Your task to perform on an android device: all mails in gmail Image 0: 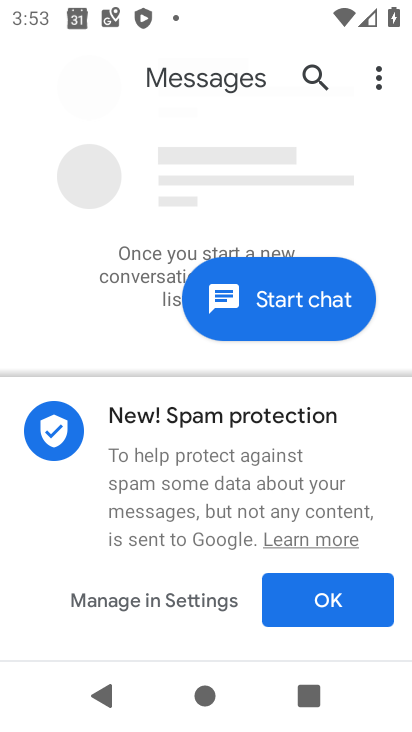
Step 0: press back button
Your task to perform on an android device: all mails in gmail Image 1: 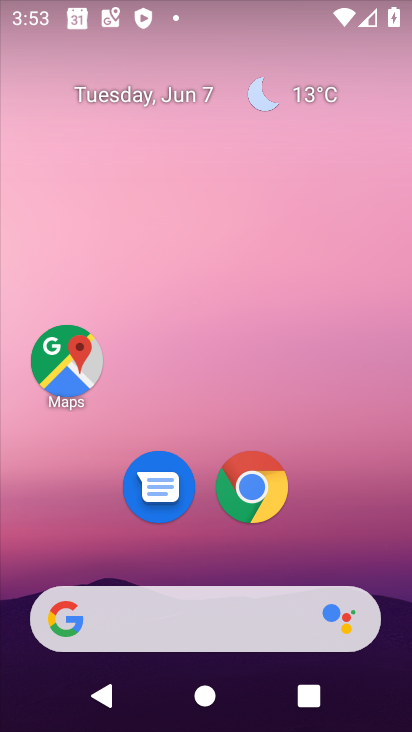
Step 1: drag from (226, 575) to (331, 18)
Your task to perform on an android device: all mails in gmail Image 2: 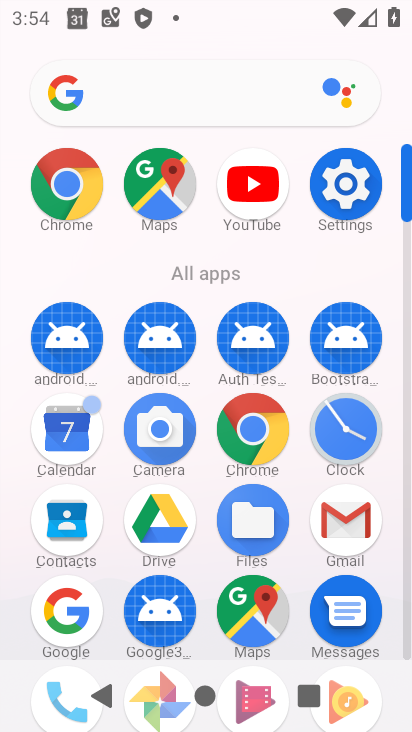
Step 2: click (345, 516)
Your task to perform on an android device: all mails in gmail Image 3: 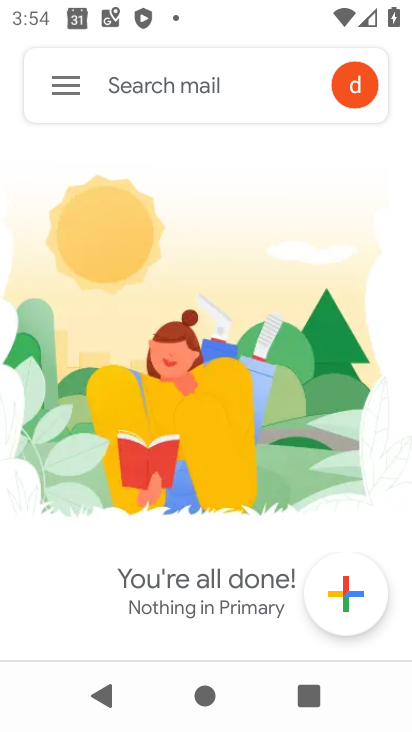
Step 3: click (61, 82)
Your task to perform on an android device: all mails in gmail Image 4: 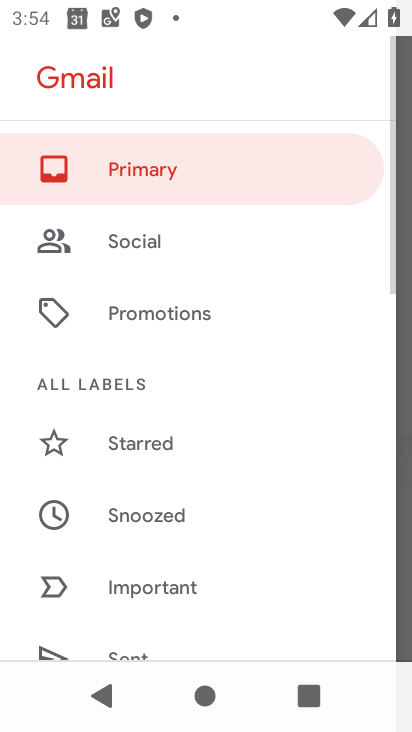
Step 4: drag from (167, 610) to (269, 180)
Your task to perform on an android device: all mails in gmail Image 5: 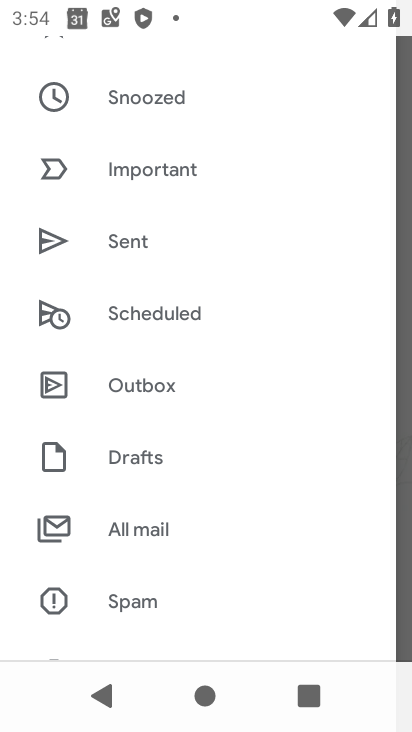
Step 5: click (141, 537)
Your task to perform on an android device: all mails in gmail Image 6: 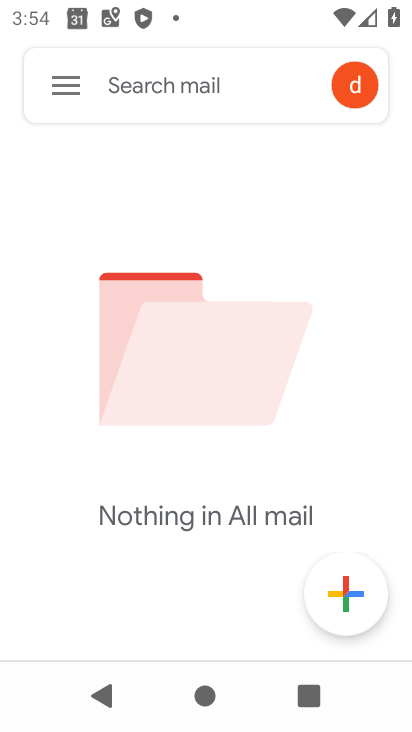
Step 6: task complete